Your task to perform on an android device: Open sound settings Image 0: 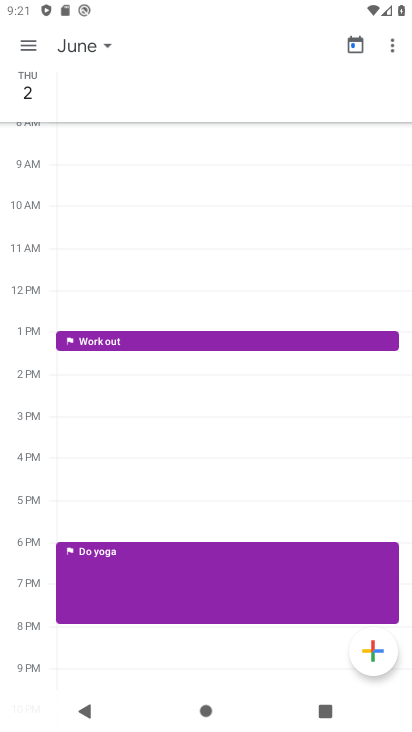
Step 0: press home button
Your task to perform on an android device: Open sound settings Image 1: 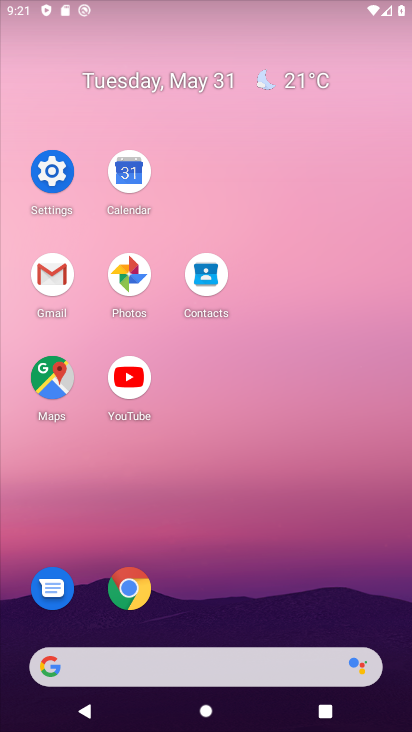
Step 1: click (69, 168)
Your task to perform on an android device: Open sound settings Image 2: 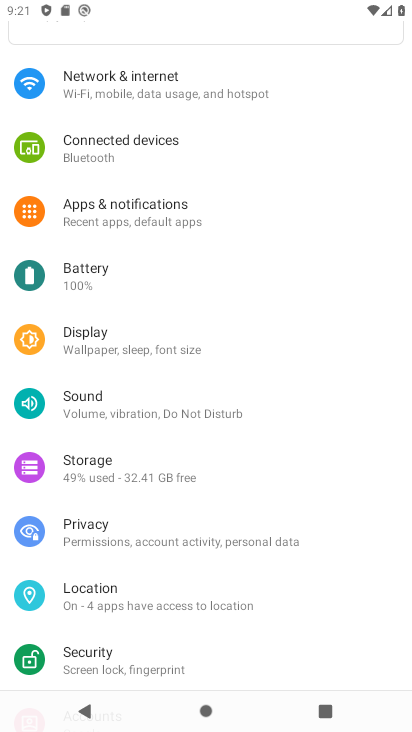
Step 2: click (142, 394)
Your task to perform on an android device: Open sound settings Image 3: 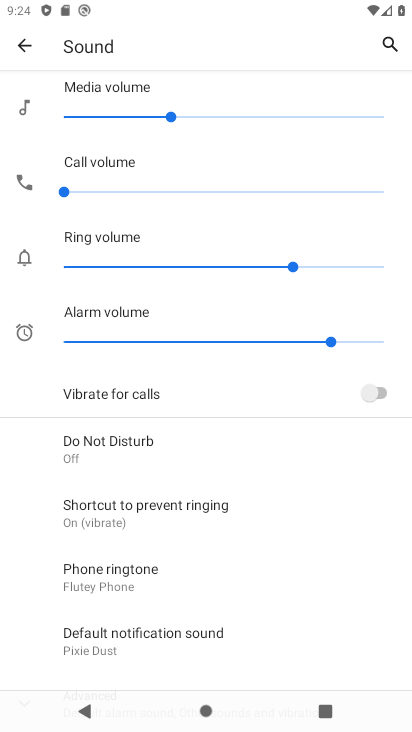
Step 3: task complete